Your task to perform on an android device: turn on the 24-hour format for clock Image 0: 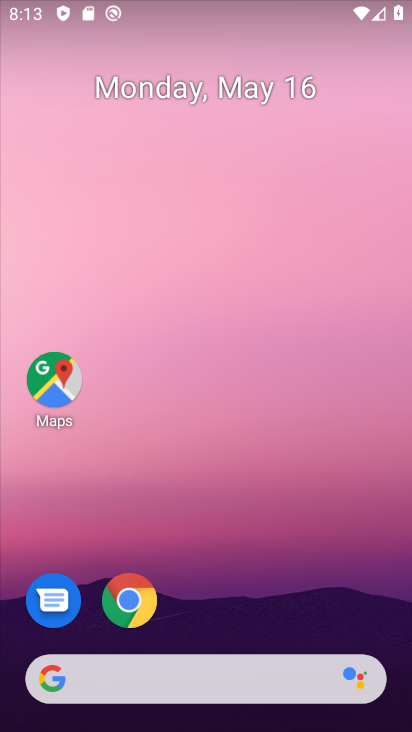
Step 0: drag from (206, 661) to (232, 245)
Your task to perform on an android device: turn on the 24-hour format for clock Image 1: 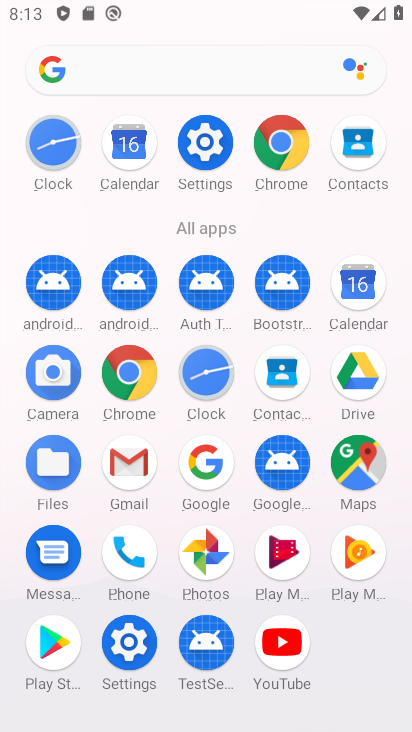
Step 1: click (216, 390)
Your task to perform on an android device: turn on the 24-hour format for clock Image 2: 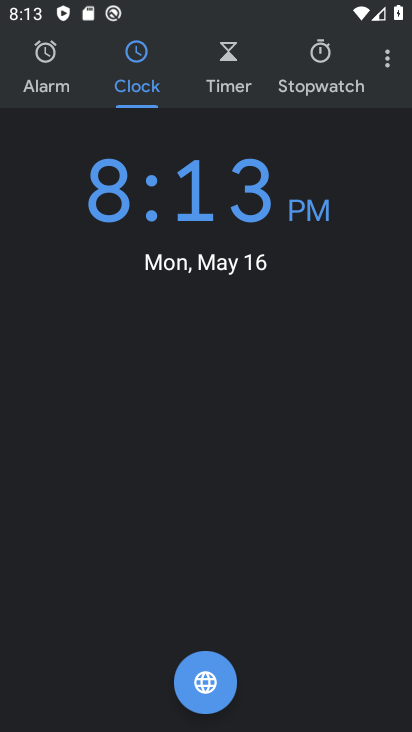
Step 2: click (385, 59)
Your task to perform on an android device: turn on the 24-hour format for clock Image 3: 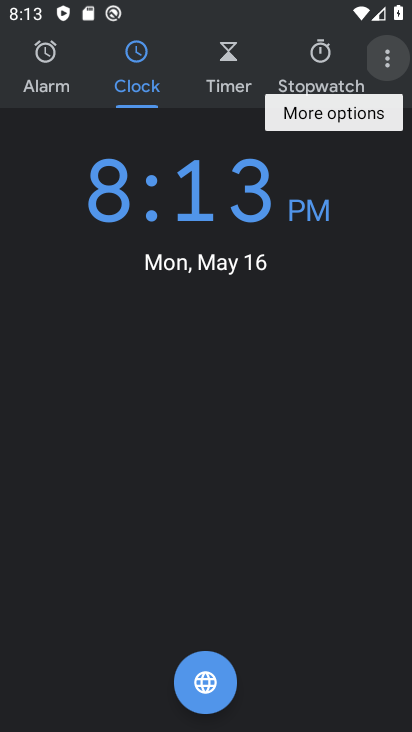
Step 3: click (386, 57)
Your task to perform on an android device: turn on the 24-hour format for clock Image 4: 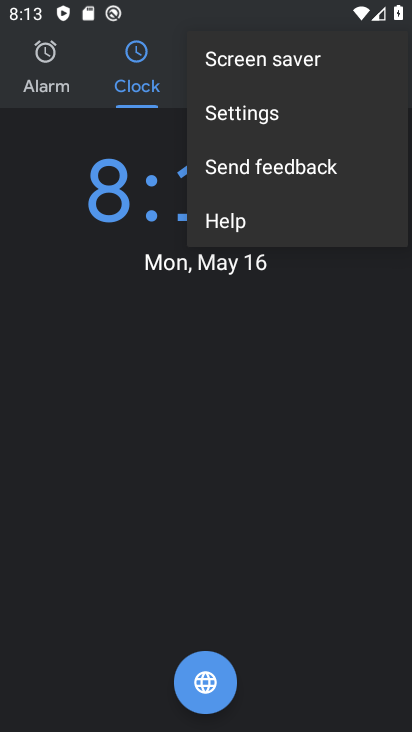
Step 4: click (297, 130)
Your task to perform on an android device: turn on the 24-hour format for clock Image 5: 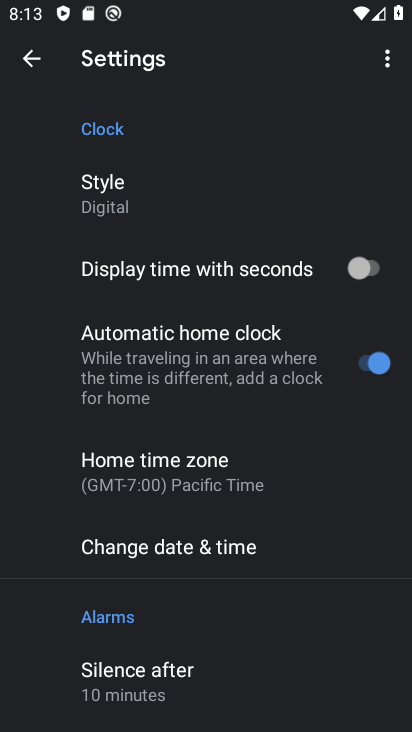
Step 5: click (183, 561)
Your task to perform on an android device: turn on the 24-hour format for clock Image 6: 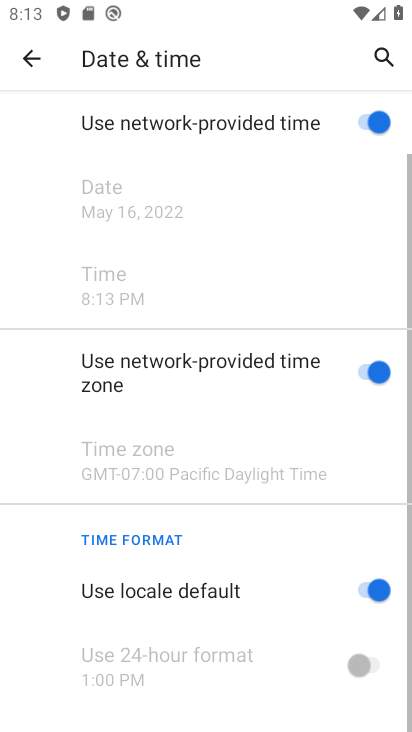
Step 6: drag from (183, 558) to (268, 165)
Your task to perform on an android device: turn on the 24-hour format for clock Image 7: 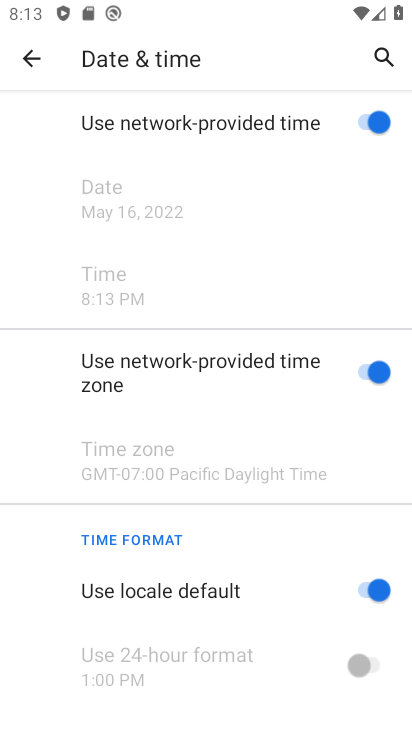
Step 7: click (376, 584)
Your task to perform on an android device: turn on the 24-hour format for clock Image 8: 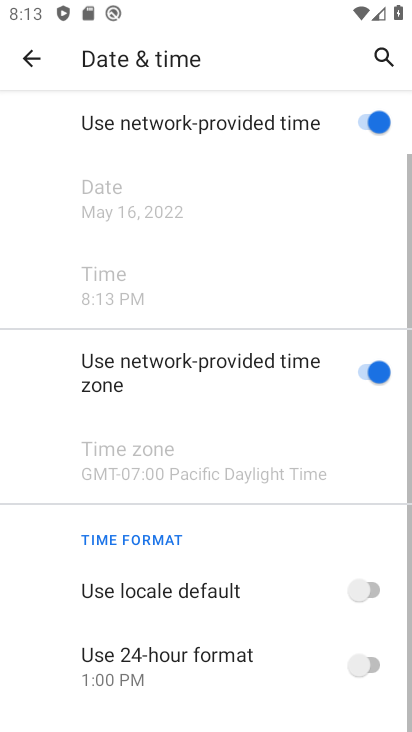
Step 8: click (386, 666)
Your task to perform on an android device: turn on the 24-hour format for clock Image 9: 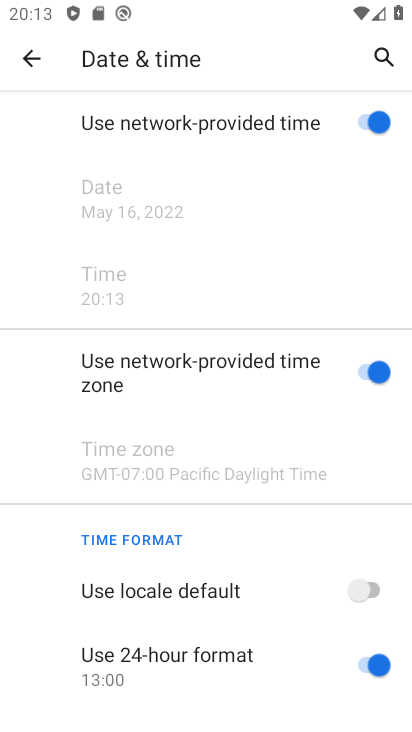
Step 9: task complete